Your task to perform on an android device: Open display settings Image 0: 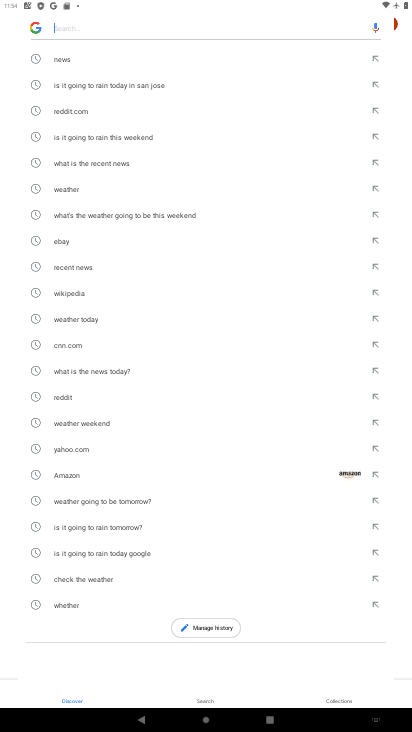
Step 0: press home button
Your task to perform on an android device: Open display settings Image 1: 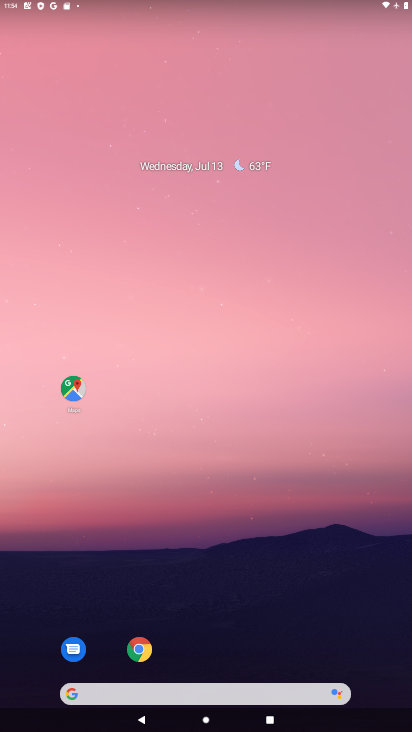
Step 1: drag from (214, 631) to (195, 186)
Your task to perform on an android device: Open display settings Image 2: 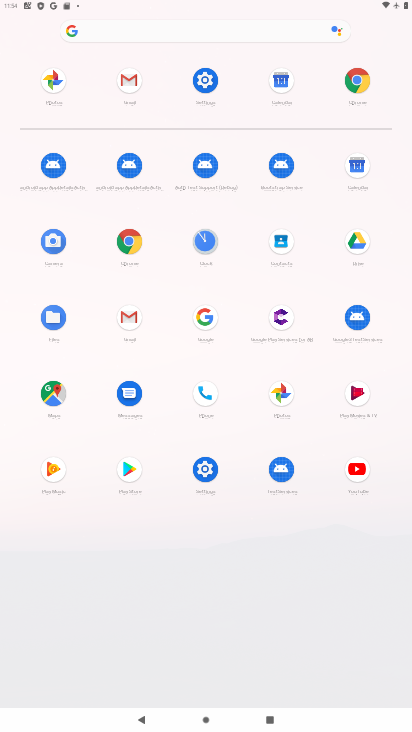
Step 2: click (202, 76)
Your task to perform on an android device: Open display settings Image 3: 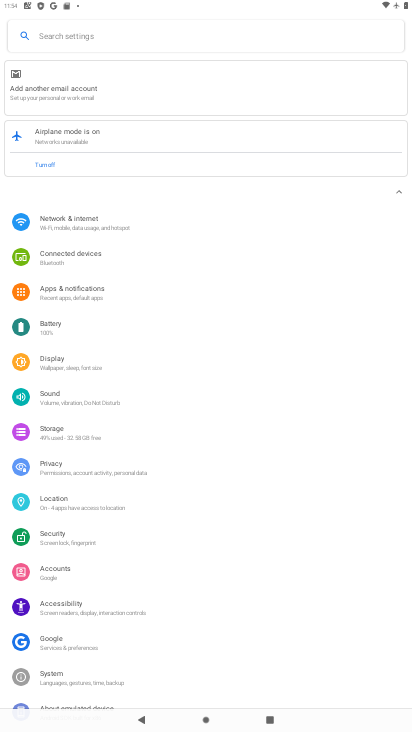
Step 3: click (76, 365)
Your task to perform on an android device: Open display settings Image 4: 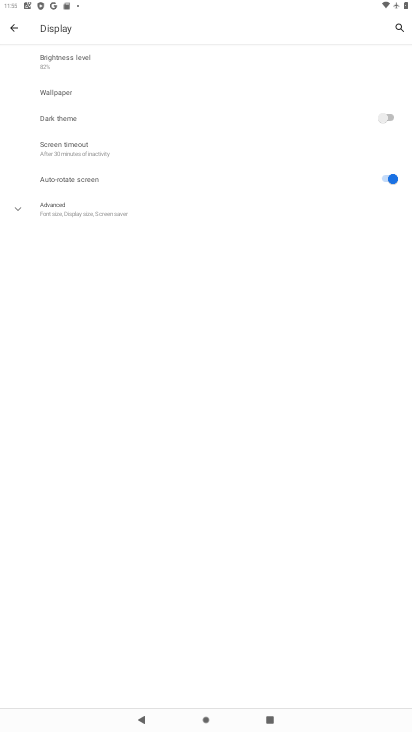
Step 4: task complete